Your task to perform on an android device: manage bookmarks in the chrome app Image 0: 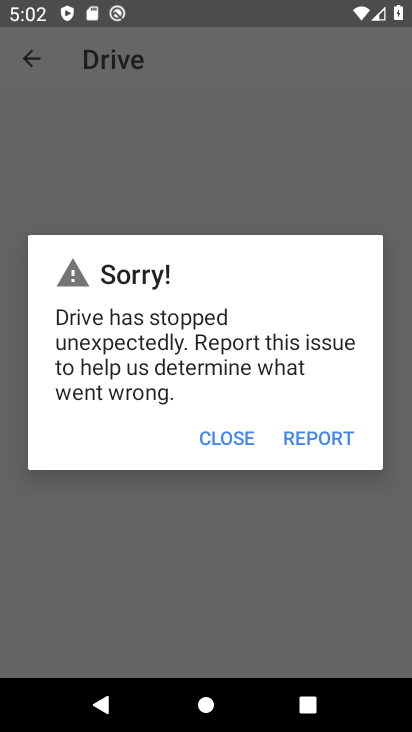
Step 0: press home button
Your task to perform on an android device: manage bookmarks in the chrome app Image 1: 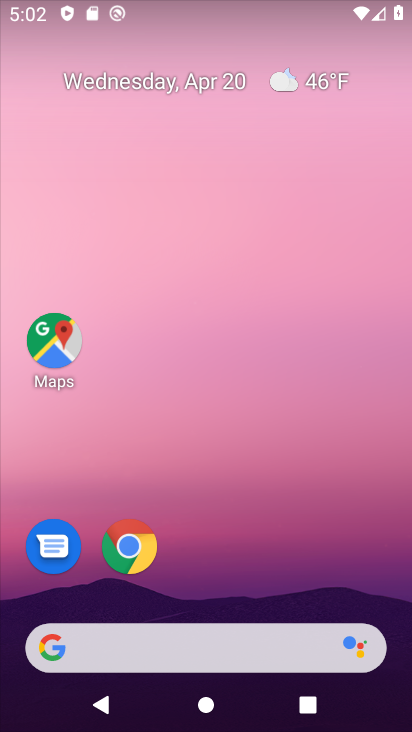
Step 1: drag from (316, 500) to (285, 66)
Your task to perform on an android device: manage bookmarks in the chrome app Image 2: 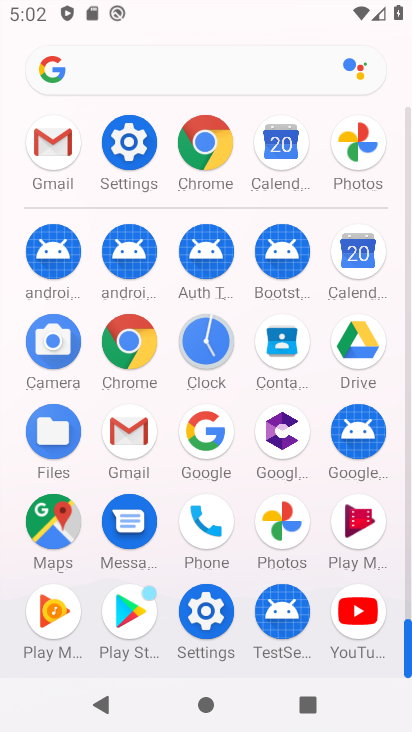
Step 2: click (190, 151)
Your task to perform on an android device: manage bookmarks in the chrome app Image 3: 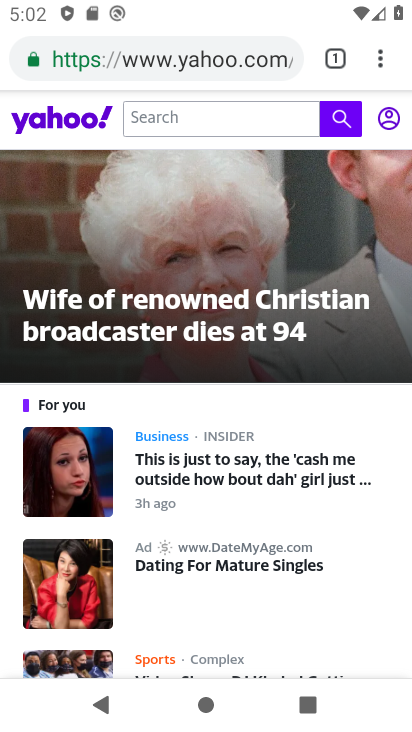
Step 3: drag from (385, 59) to (229, 240)
Your task to perform on an android device: manage bookmarks in the chrome app Image 4: 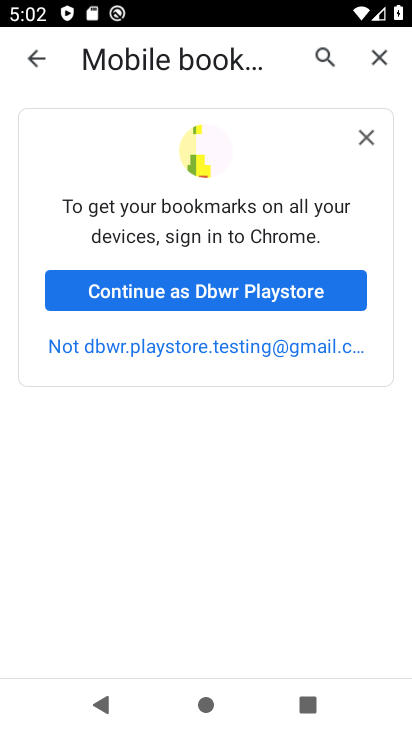
Step 4: click (268, 292)
Your task to perform on an android device: manage bookmarks in the chrome app Image 5: 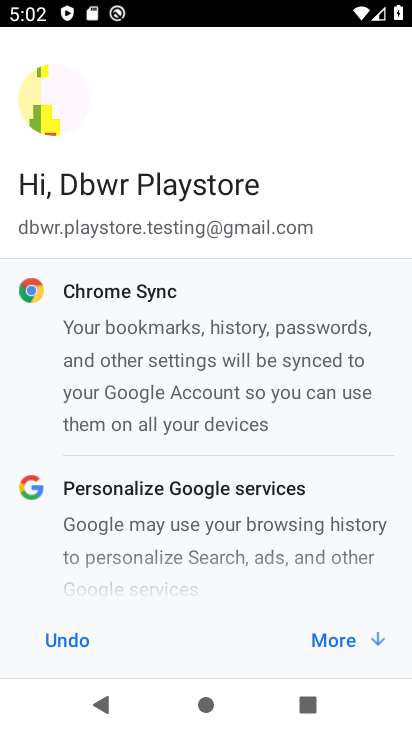
Step 5: click (346, 640)
Your task to perform on an android device: manage bookmarks in the chrome app Image 6: 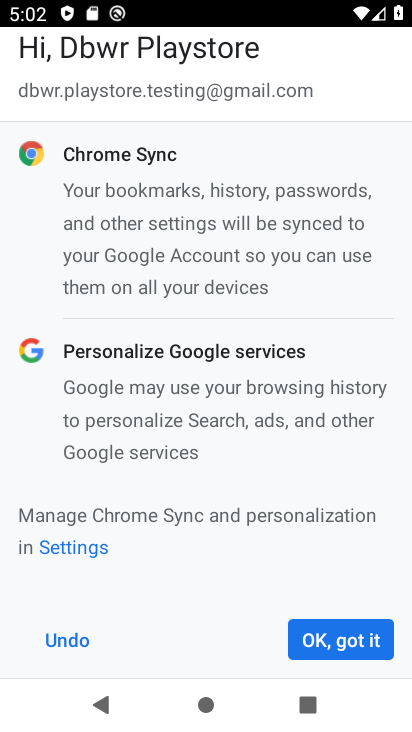
Step 6: click (348, 627)
Your task to perform on an android device: manage bookmarks in the chrome app Image 7: 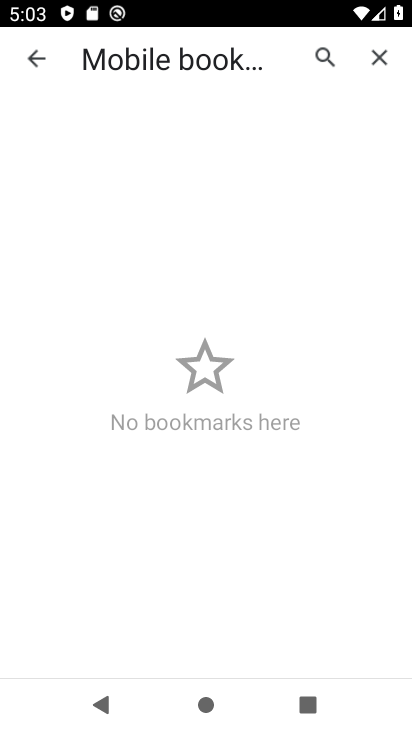
Step 7: task complete